Your task to perform on an android device: Open notification settings Image 0: 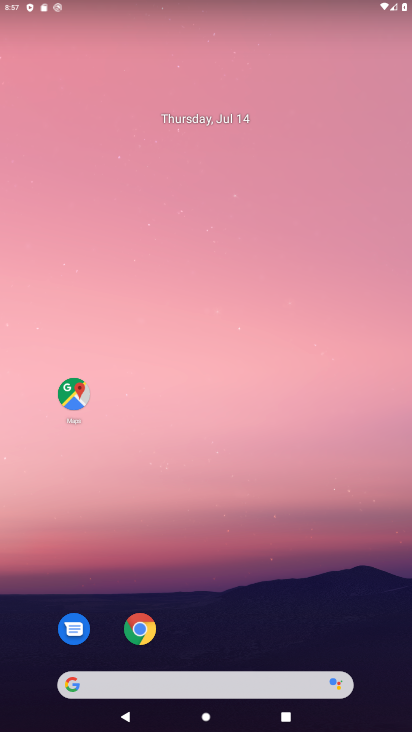
Step 0: drag from (233, 639) to (224, 221)
Your task to perform on an android device: Open notification settings Image 1: 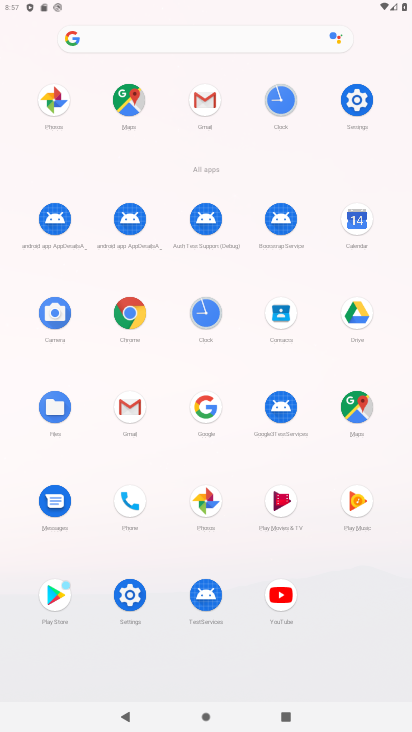
Step 1: click (344, 89)
Your task to perform on an android device: Open notification settings Image 2: 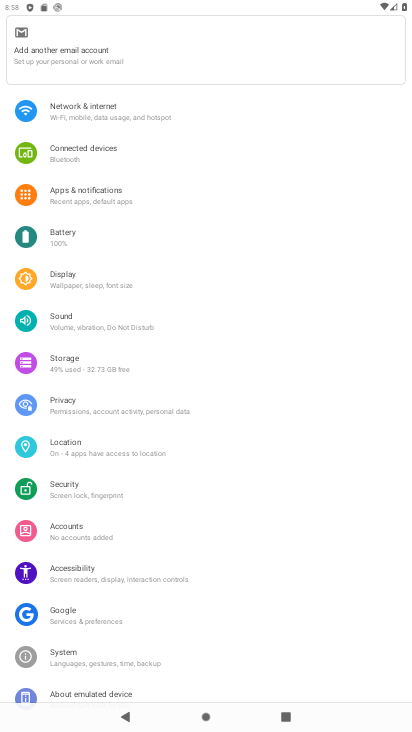
Step 2: click (124, 189)
Your task to perform on an android device: Open notification settings Image 3: 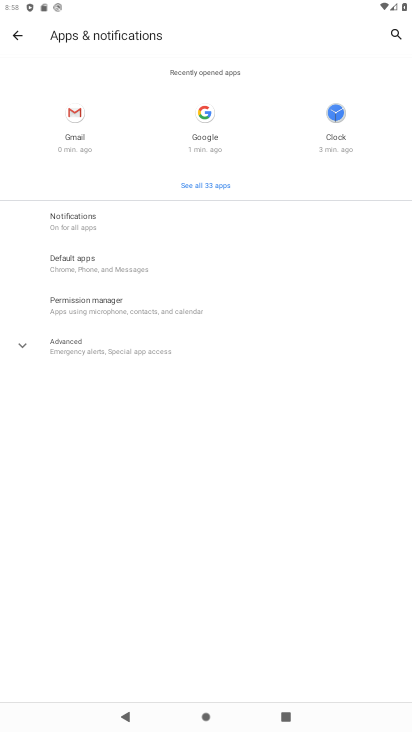
Step 3: click (84, 213)
Your task to perform on an android device: Open notification settings Image 4: 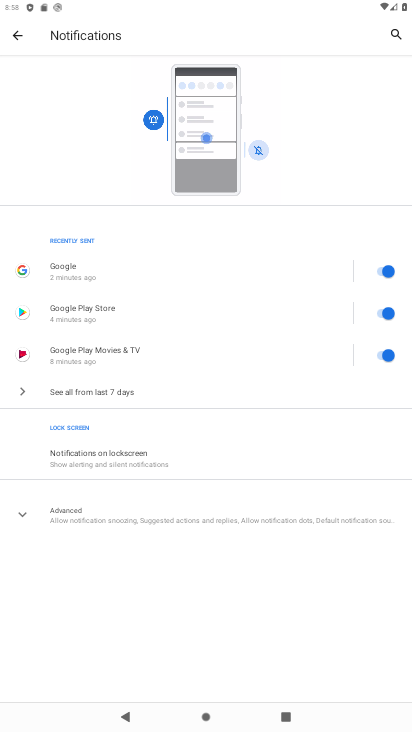
Step 4: task complete